Your task to perform on an android device: turn pop-ups off in chrome Image 0: 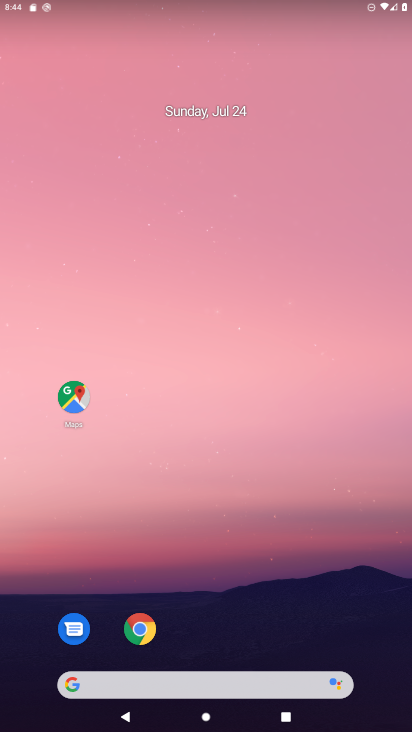
Step 0: drag from (353, 657) to (158, 1)
Your task to perform on an android device: turn pop-ups off in chrome Image 1: 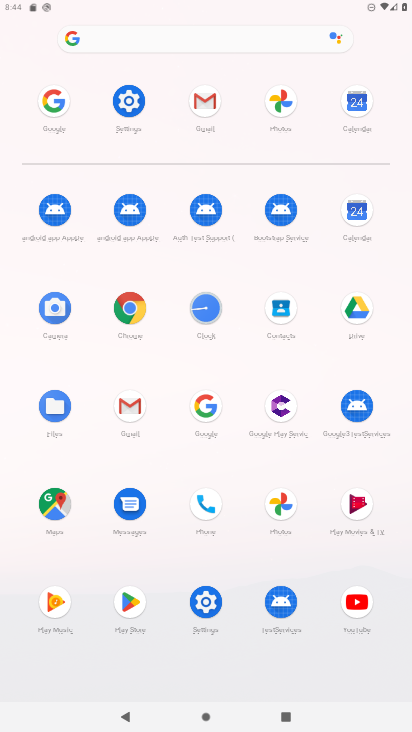
Step 1: click (121, 326)
Your task to perform on an android device: turn pop-ups off in chrome Image 2: 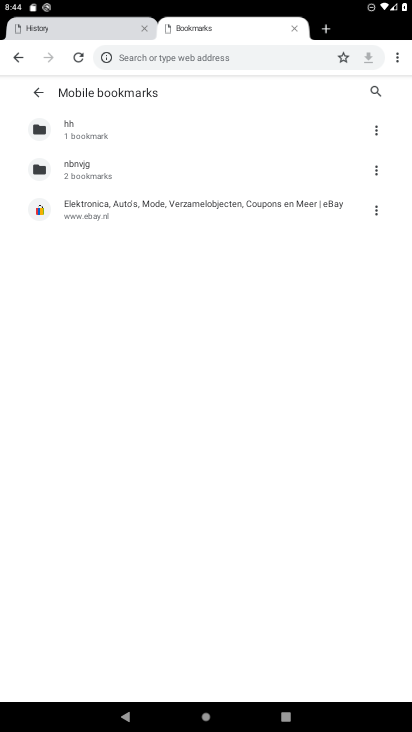
Step 2: click (393, 61)
Your task to perform on an android device: turn pop-ups off in chrome Image 3: 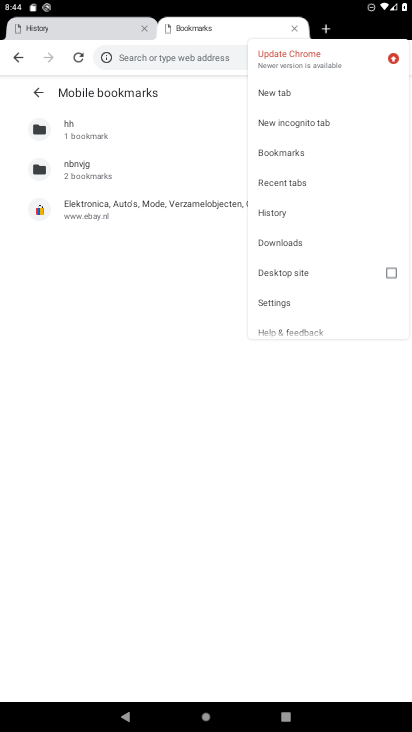
Step 3: click (274, 306)
Your task to perform on an android device: turn pop-ups off in chrome Image 4: 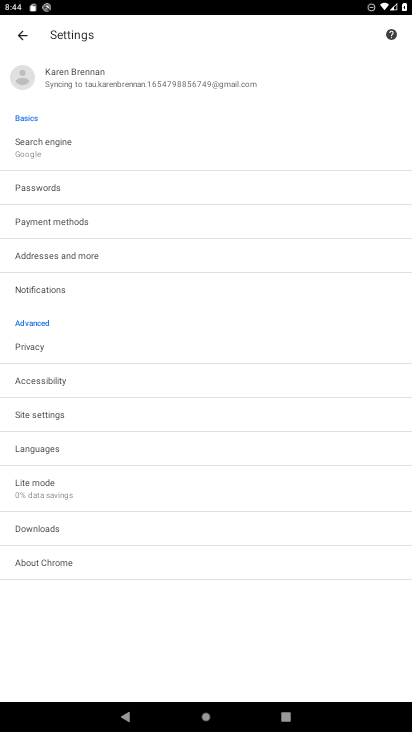
Step 4: click (64, 421)
Your task to perform on an android device: turn pop-ups off in chrome Image 5: 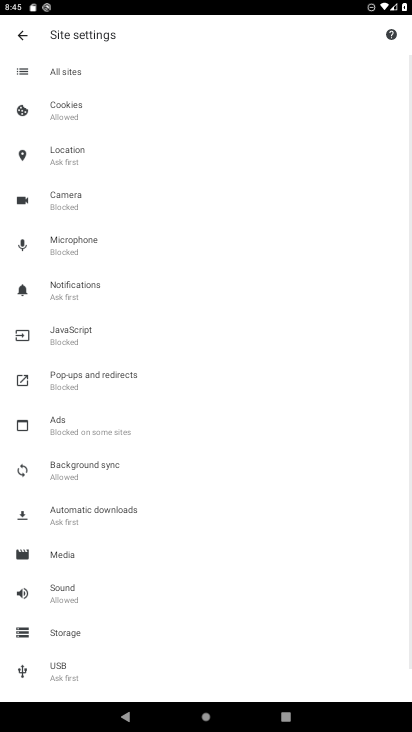
Step 5: click (85, 385)
Your task to perform on an android device: turn pop-ups off in chrome Image 6: 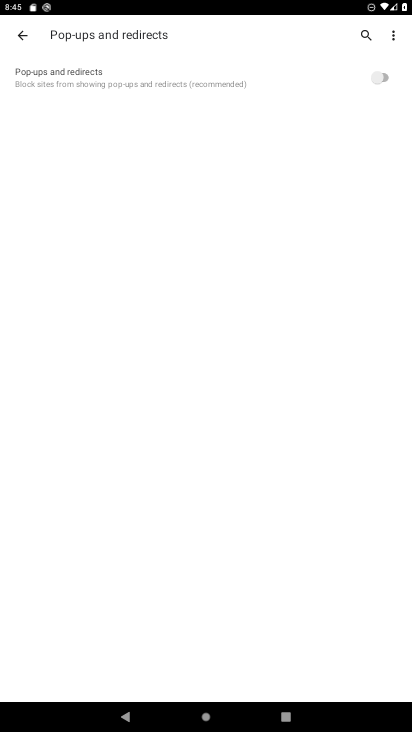
Step 6: task complete